Your task to perform on an android device: Open Google Maps Image 0: 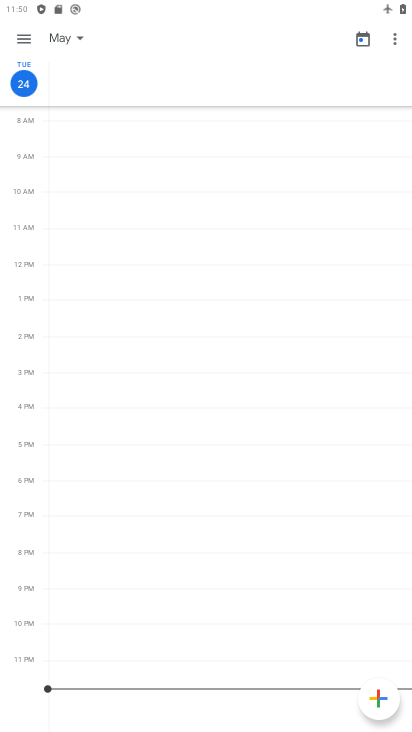
Step 0: press home button
Your task to perform on an android device: Open Google Maps Image 1: 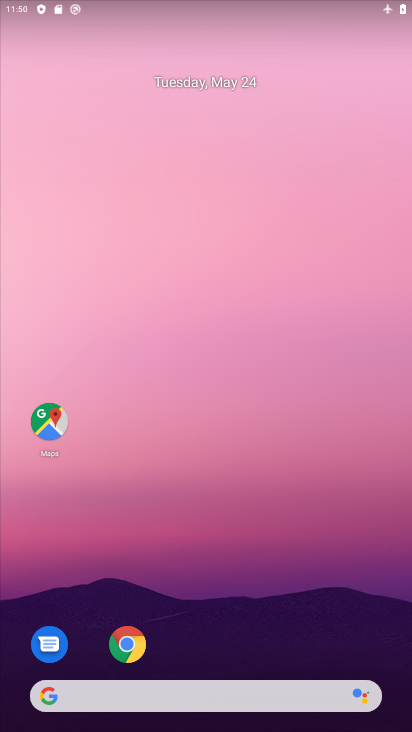
Step 1: click (41, 432)
Your task to perform on an android device: Open Google Maps Image 2: 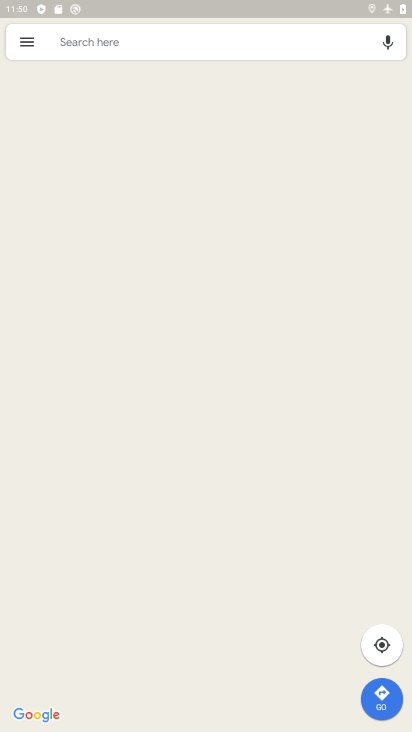
Step 2: task complete